Your task to perform on an android device: Open Google Chrome Image 0: 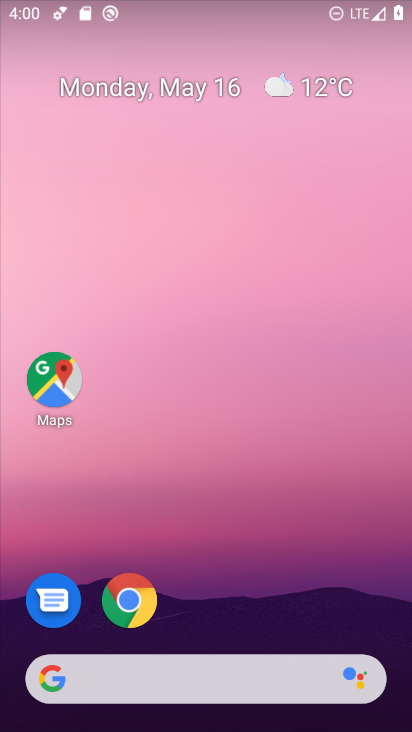
Step 0: click (129, 609)
Your task to perform on an android device: Open Google Chrome Image 1: 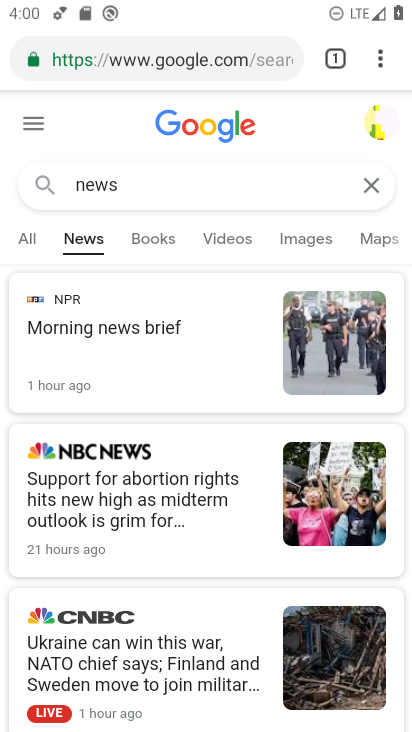
Step 1: task complete